Your task to perform on an android device: Open Amazon Image 0: 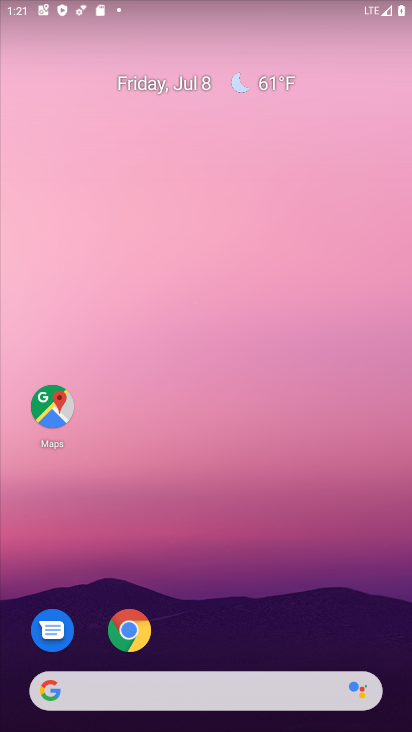
Step 0: drag from (389, 654) to (291, 58)
Your task to perform on an android device: Open Amazon Image 1: 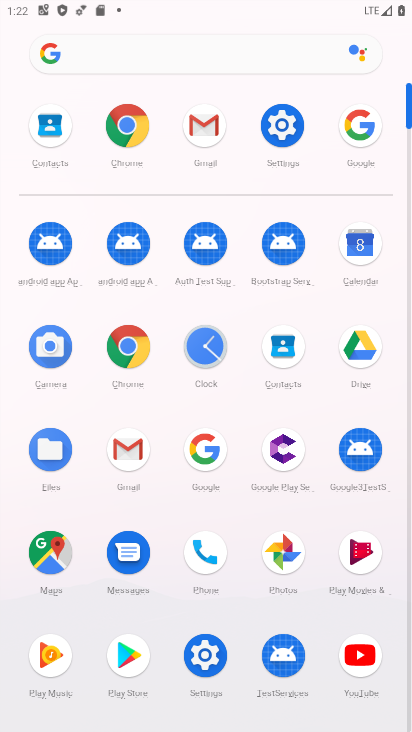
Step 1: click (217, 460)
Your task to perform on an android device: Open Amazon Image 2: 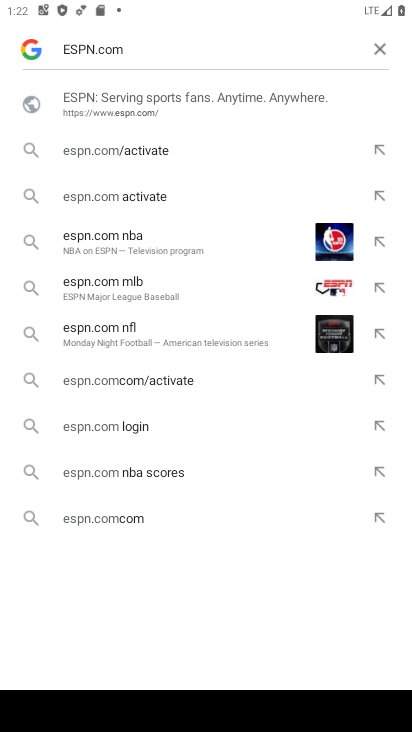
Step 2: press back button
Your task to perform on an android device: Open Amazon Image 3: 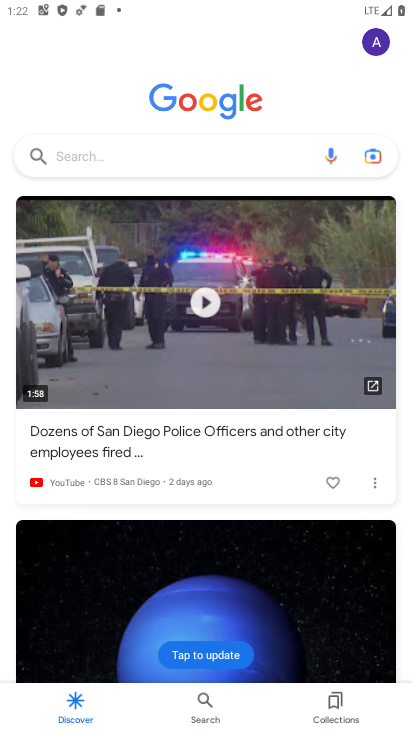
Step 3: click (115, 157)
Your task to perform on an android device: Open Amazon Image 4: 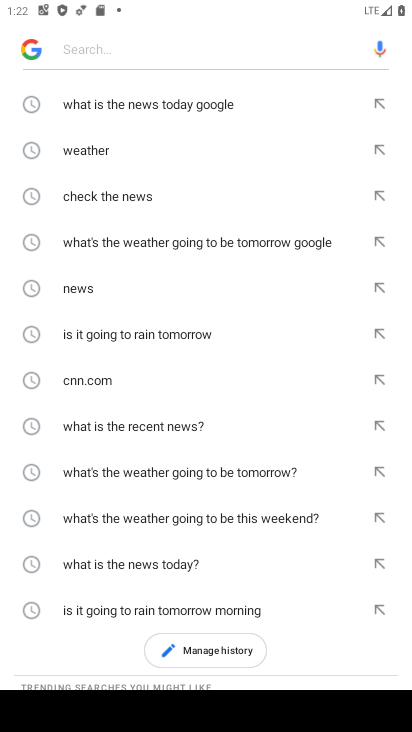
Step 4: type "Amazon"
Your task to perform on an android device: Open Amazon Image 5: 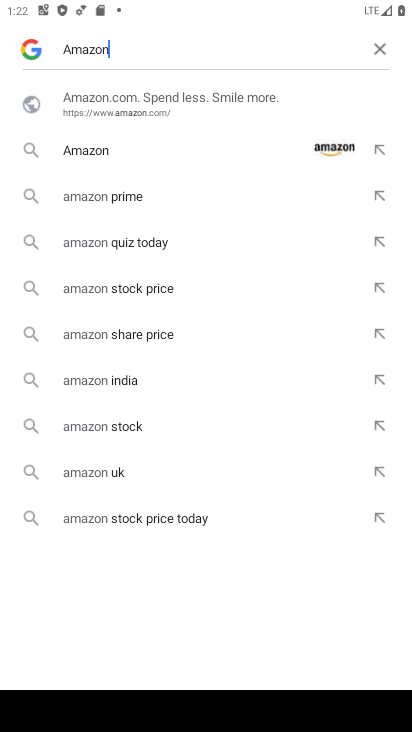
Step 5: click (106, 163)
Your task to perform on an android device: Open Amazon Image 6: 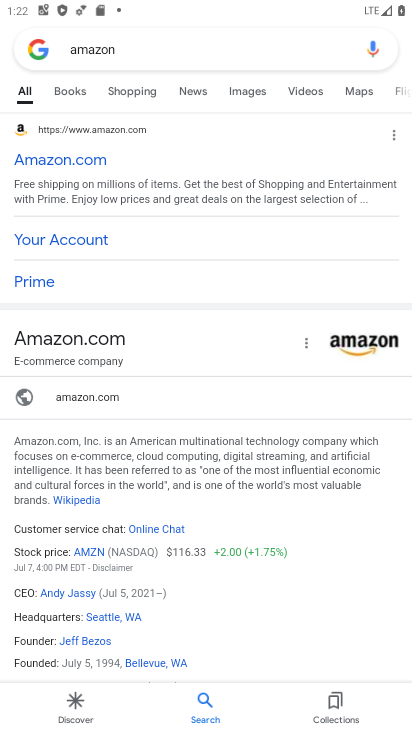
Step 6: task complete